Your task to perform on an android device: refresh tabs in the chrome app Image 0: 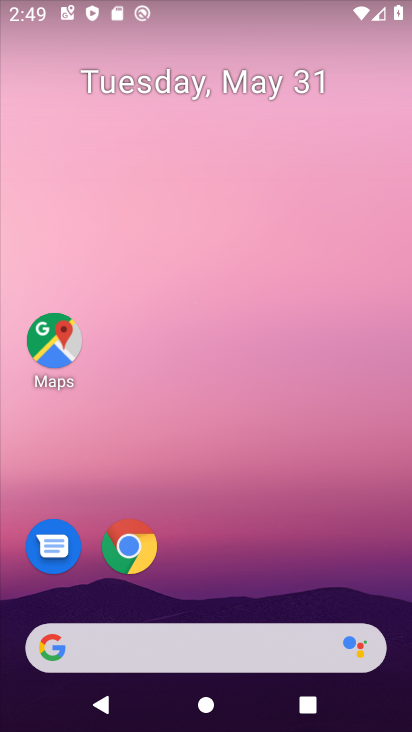
Step 0: click (136, 539)
Your task to perform on an android device: refresh tabs in the chrome app Image 1: 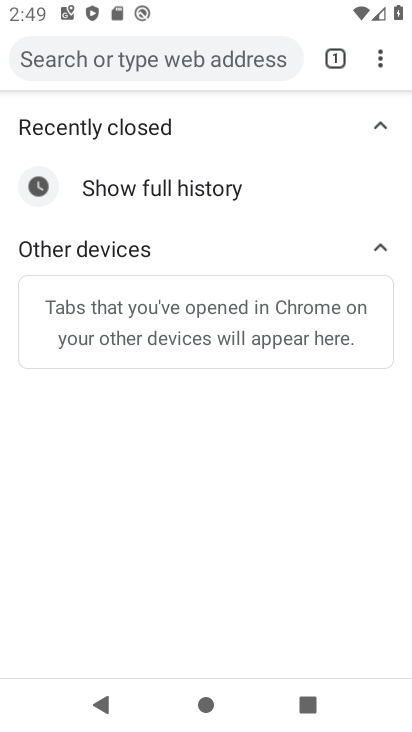
Step 1: click (374, 56)
Your task to perform on an android device: refresh tabs in the chrome app Image 2: 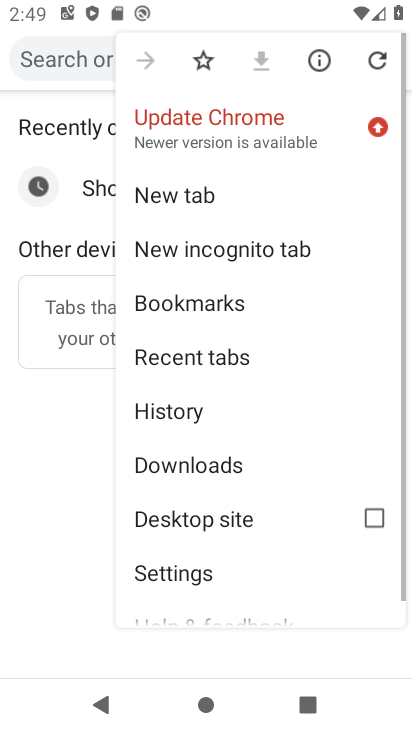
Step 2: click (374, 56)
Your task to perform on an android device: refresh tabs in the chrome app Image 3: 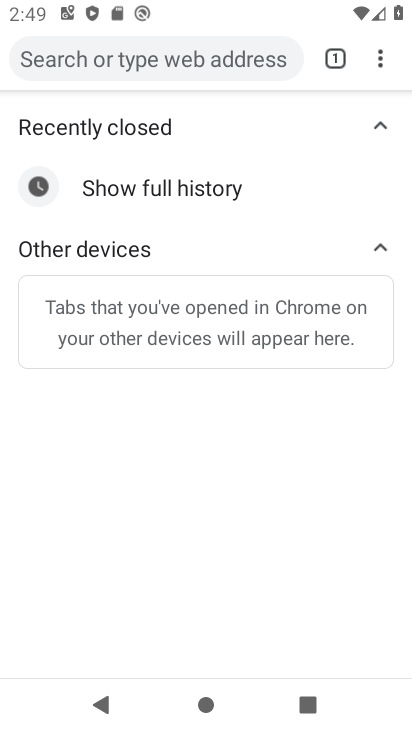
Step 3: task complete